Your task to perform on an android device: Open CNN.com Image 0: 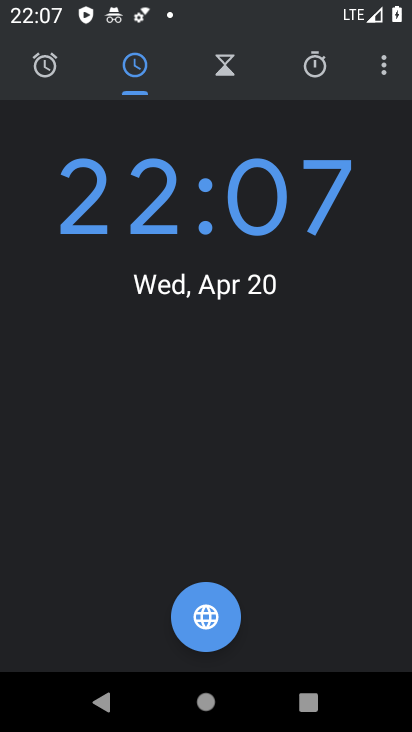
Step 0: press home button
Your task to perform on an android device: Open CNN.com Image 1: 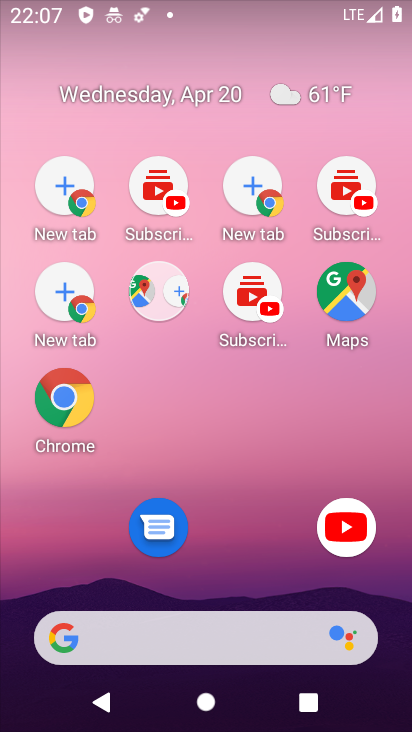
Step 1: drag from (377, 600) to (136, 46)
Your task to perform on an android device: Open CNN.com Image 2: 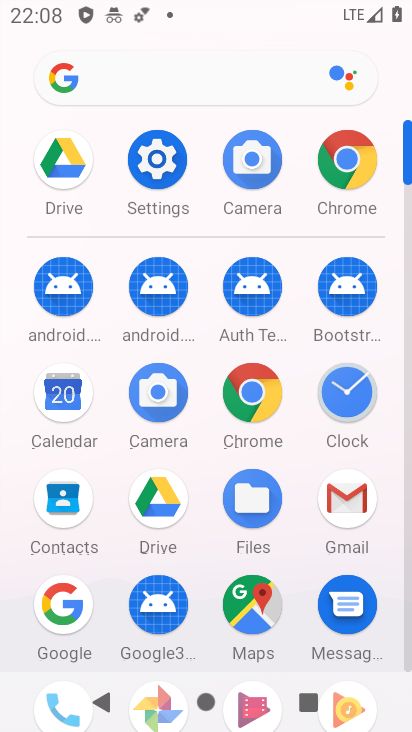
Step 2: click (245, 401)
Your task to perform on an android device: Open CNN.com Image 3: 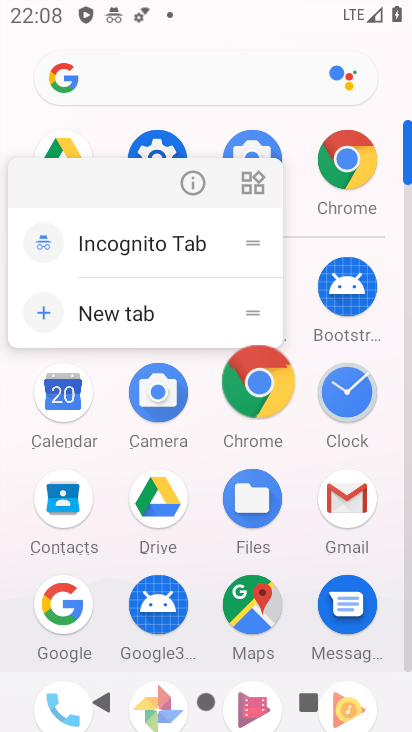
Step 3: click (246, 388)
Your task to perform on an android device: Open CNN.com Image 4: 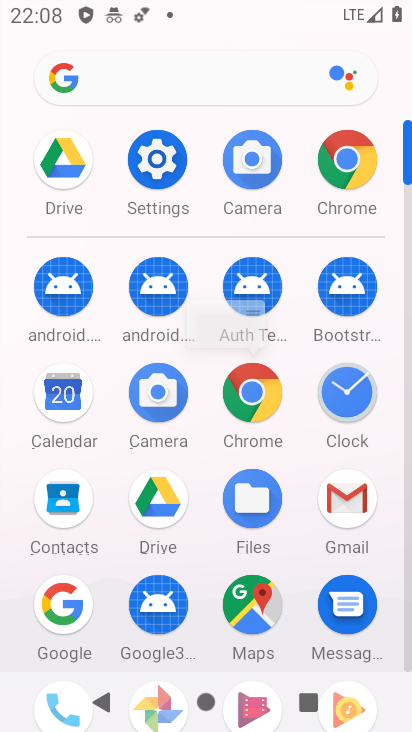
Step 4: click (245, 374)
Your task to perform on an android device: Open CNN.com Image 5: 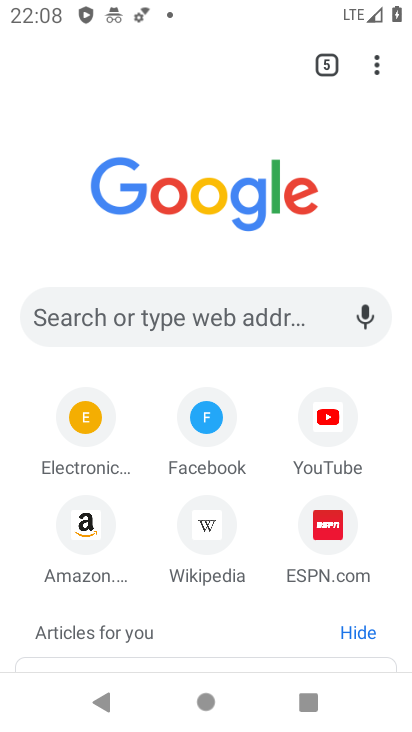
Step 5: click (100, 307)
Your task to perform on an android device: Open CNN.com Image 6: 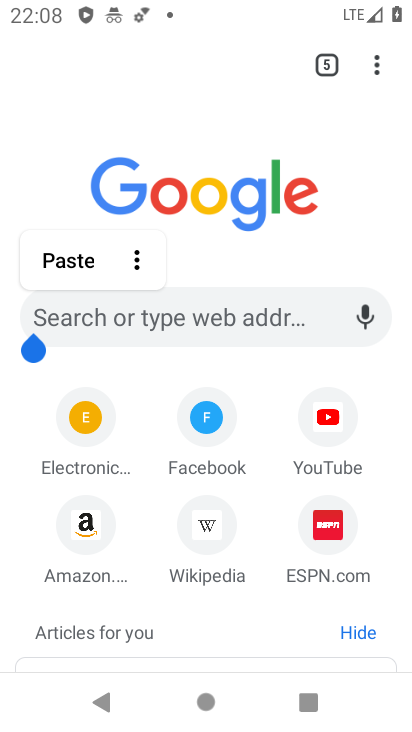
Step 6: click (86, 319)
Your task to perform on an android device: Open CNN.com Image 7: 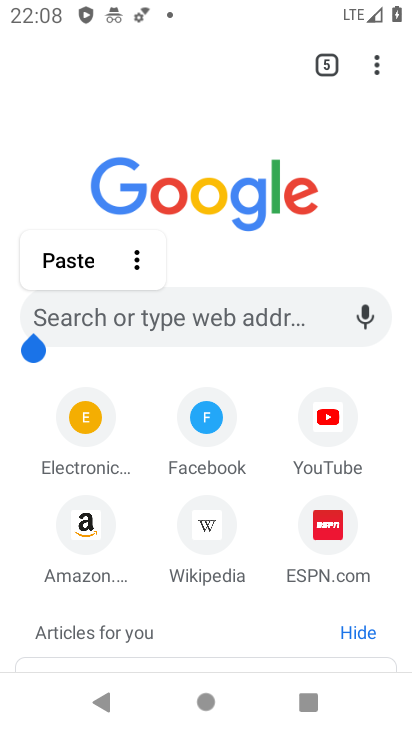
Step 7: click (90, 311)
Your task to perform on an android device: Open CNN.com Image 8: 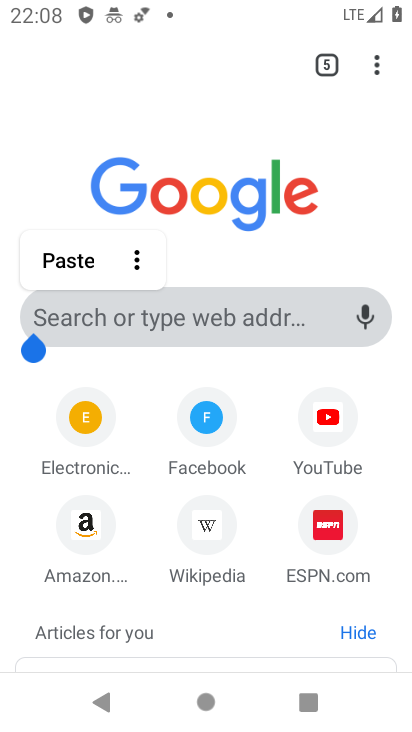
Step 8: click (89, 308)
Your task to perform on an android device: Open CNN.com Image 9: 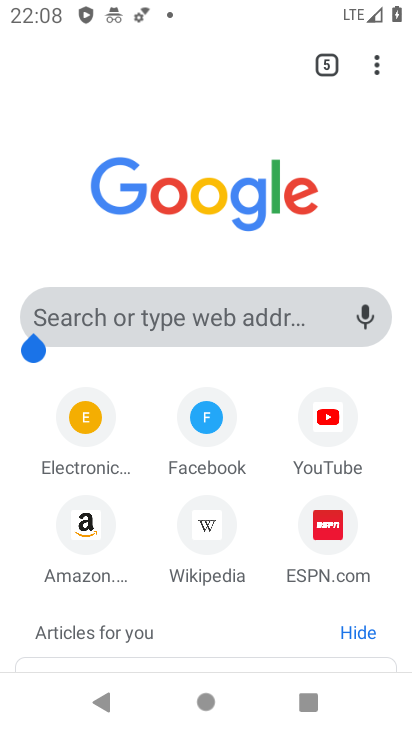
Step 9: click (95, 310)
Your task to perform on an android device: Open CNN.com Image 10: 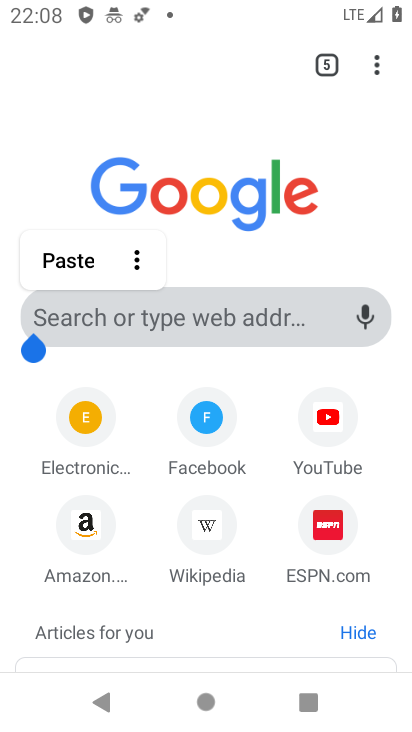
Step 10: click (97, 311)
Your task to perform on an android device: Open CNN.com Image 11: 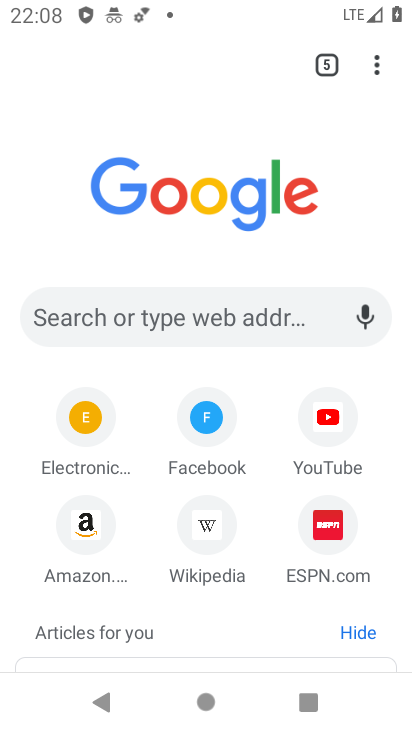
Step 11: click (93, 308)
Your task to perform on an android device: Open CNN.com Image 12: 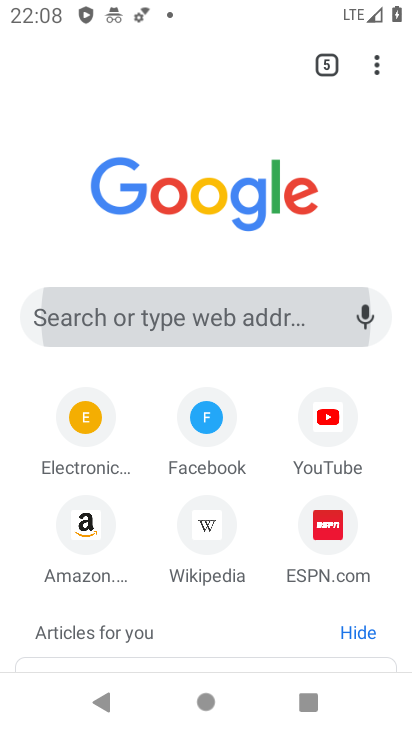
Step 12: click (93, 308)
Your task to perform on an android device: Open CNN.com Image 13: 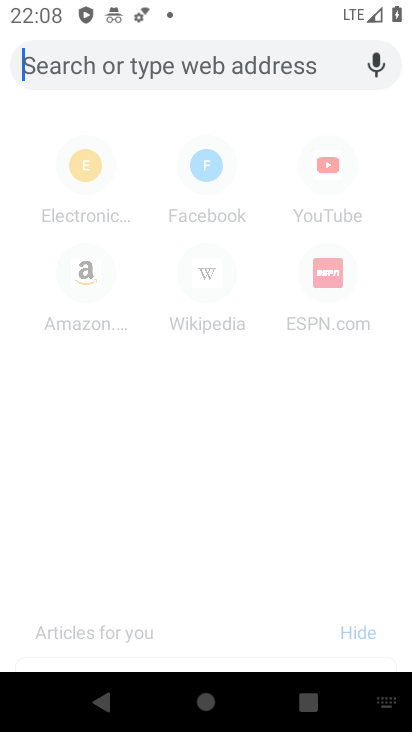
Step 13: type "www.cnn.com"
Your task to perform on an android device: Open CNN.com Image 14: 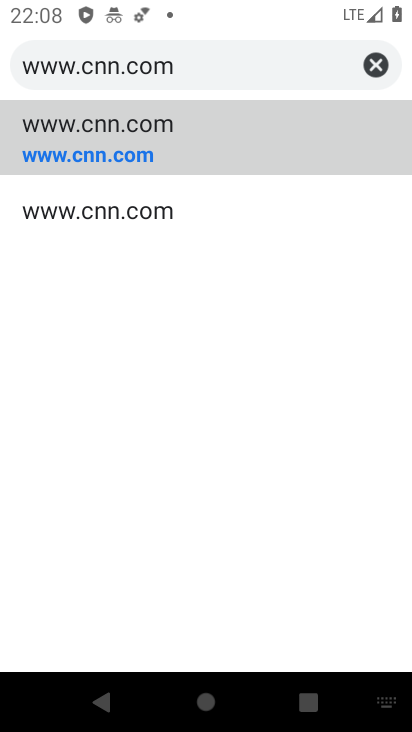
Step 14: click (103, 149)
Your task to perform on an android device: Open CNN.com Image 15: 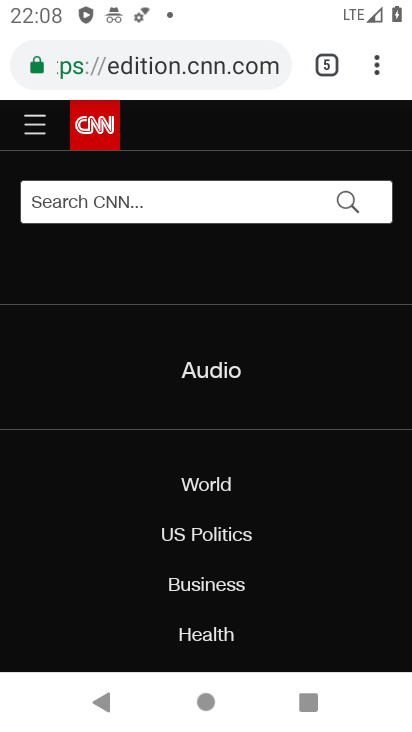
Step 15: task complete